Your task to perform on an android device: allow cookies in the chrome app Image 0: 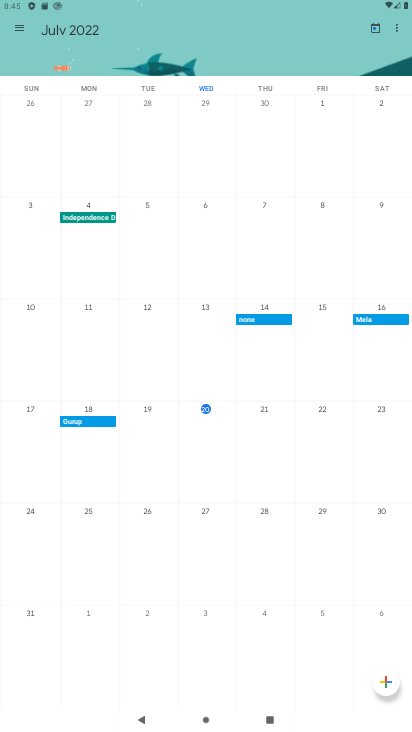
Step 0: press home button
Your task to perform on an android device: allow cookies in the chrome app Image 1: 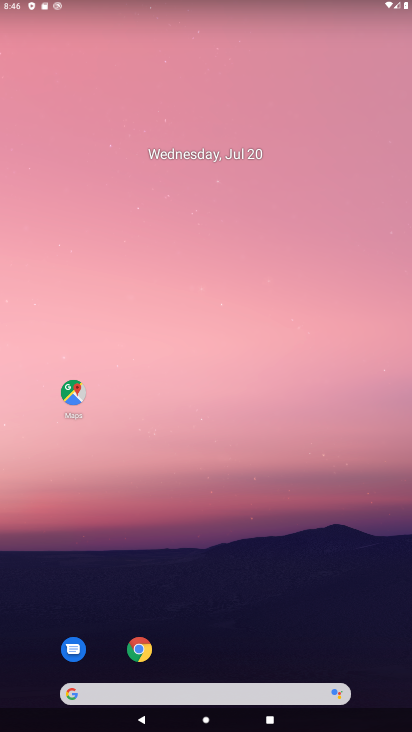
Step 1: drag from (203, 688) to (200, 265)
Your task to perform on an android device: allow cookies in the chrome app Image 2: 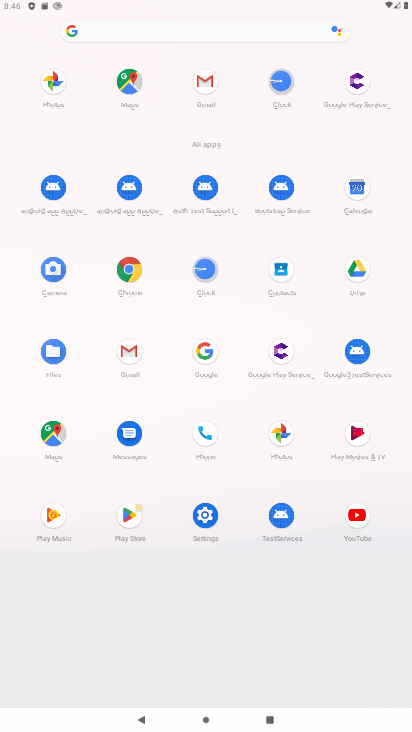
Step 2: click (121, 276)
Your task to perform on an android device: allow cookies in the chrome app Image 3: 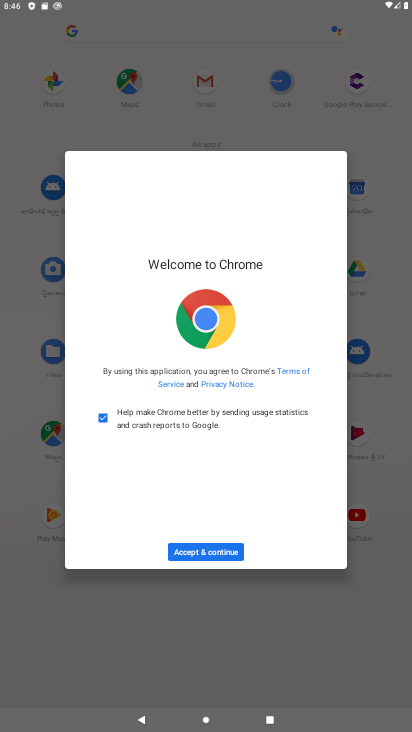
Step 3: click (211, 556)
Your task to perform on an android device: allow cookies in the chrome app Image 4: 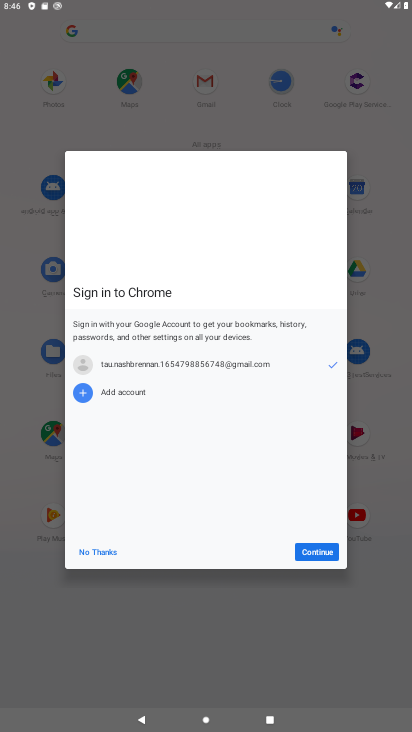
Step 4: click (307, 556)
Your task to perform on an android device: allow cookies in the chrome app Image 5: 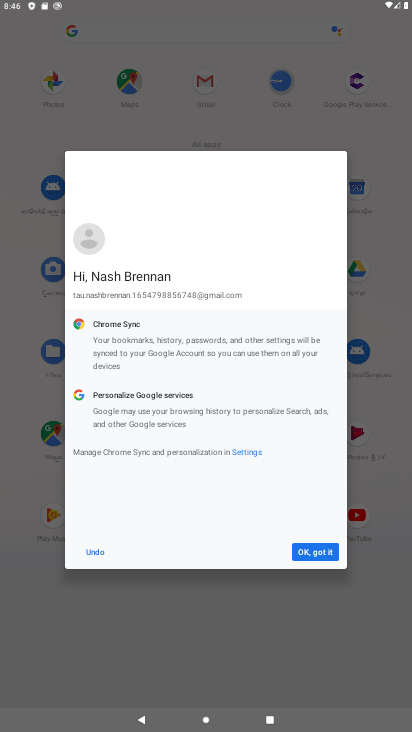
Step 5: click (307, 556)
Your task to perform on an android device: allow cookies in the chrome app Image 6: 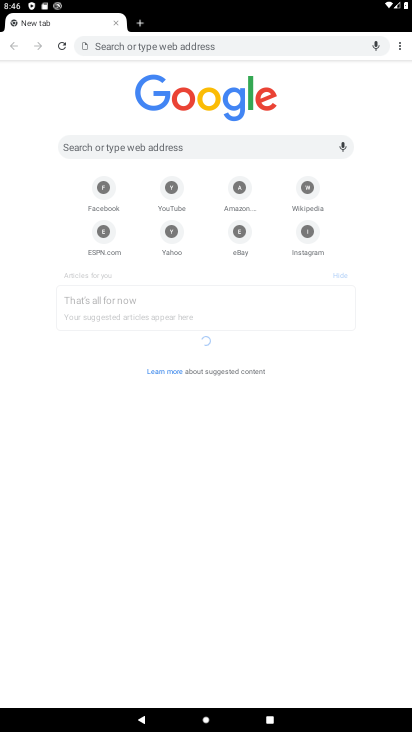
Step 6: click (398, 48)
Your task to perform on an android device: allow cookies in the chrome app Image 7: 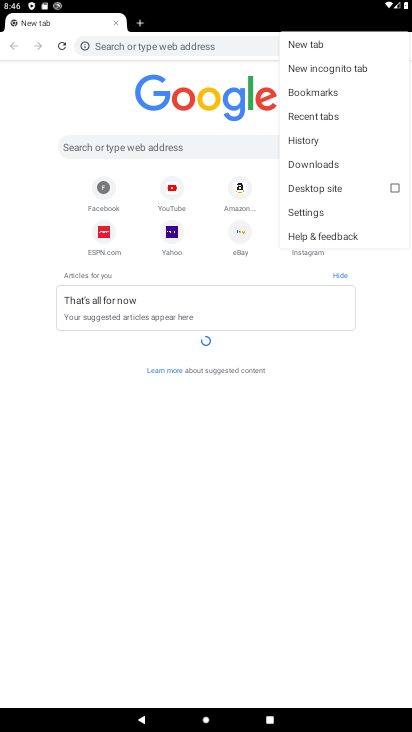
Step 7: click (299, 214)
Your task to perform on an android device: allow cookies in the chrome app Image 8: 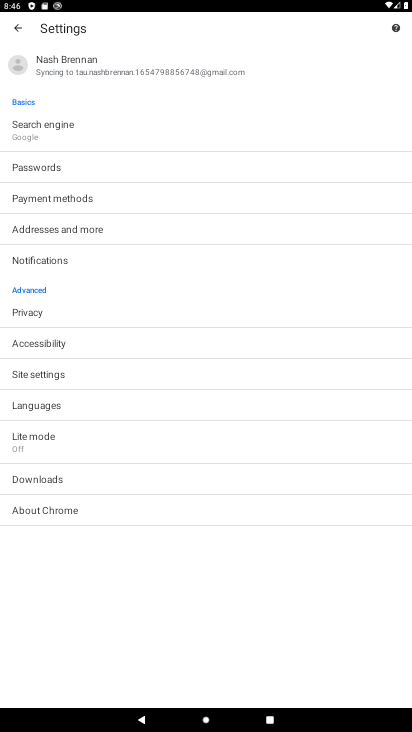
Step 8: click (26, 378)
Your task to perform on an android device: allow cookies in the chrome app Image 9: 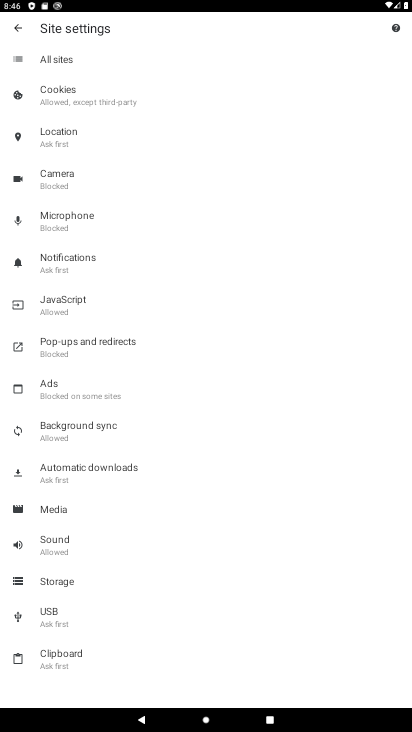
Step 9: click (76, 95)
Your task to perform on an android device: allow cookies in the chrome app Image 10: 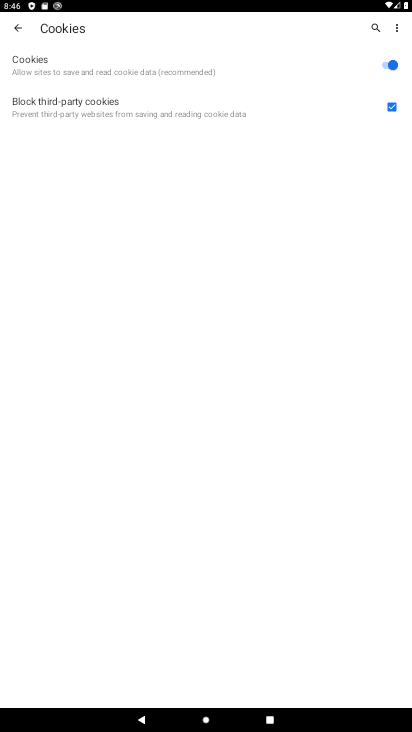
Step 10: task complete